Your task to perform on an android device: Open Chrome and go to settings Image 0: 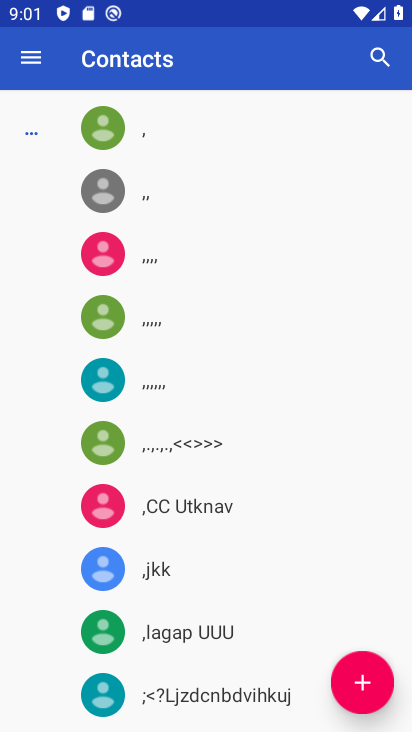
Step 0: press home button
Your task to perform on an android device: Open Chrome and go to settings Image 1: 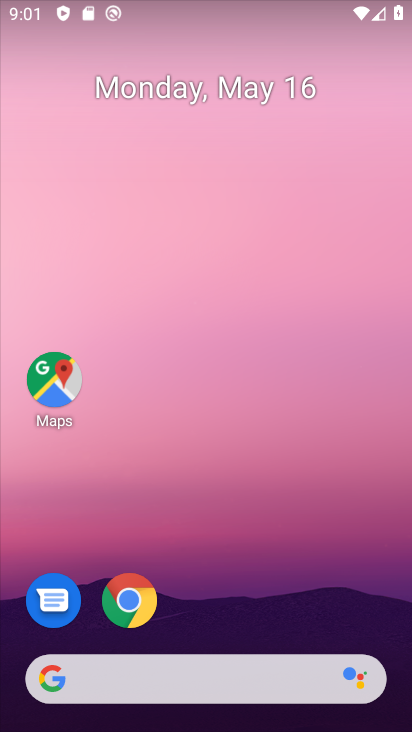
Step 1: click (126, 606)
Your task to perform on an android device: Open Chrome and go to settings Image 2: 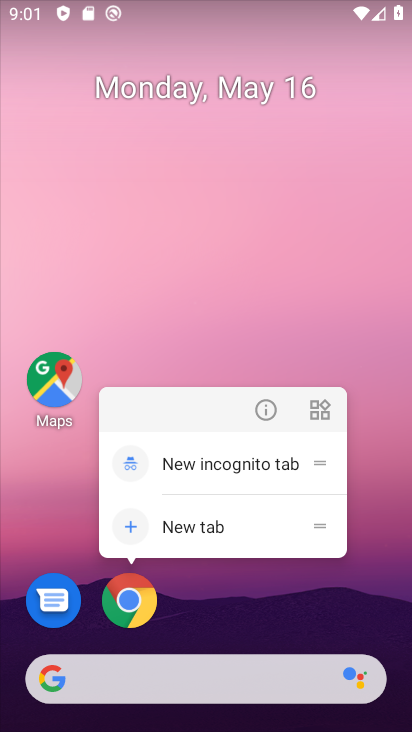
Step 2: click (126, 611)
Your task to perform on an android device: Open Chrome and go to settings Image 3: 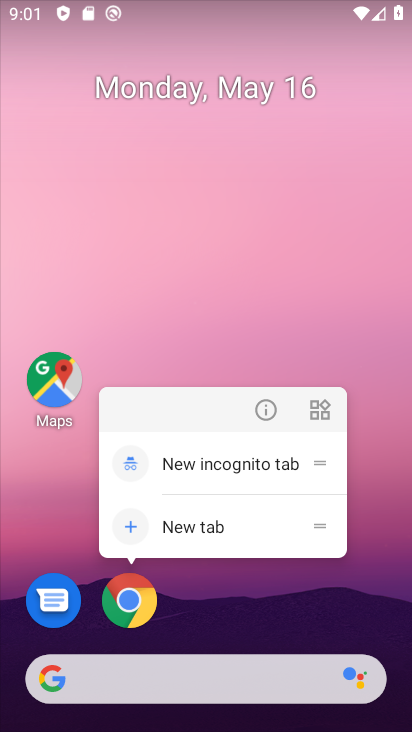
Step 3: click (141, 623)
Your task to perform on an android device: Open Chrome and go to settings Image 4: 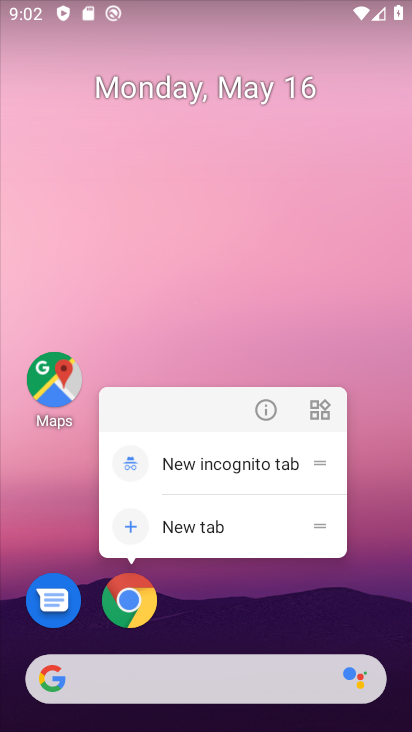
Step 4: click (125, 599)
Your task to perform on an android device: Open Chrome and go to settings Image 5: 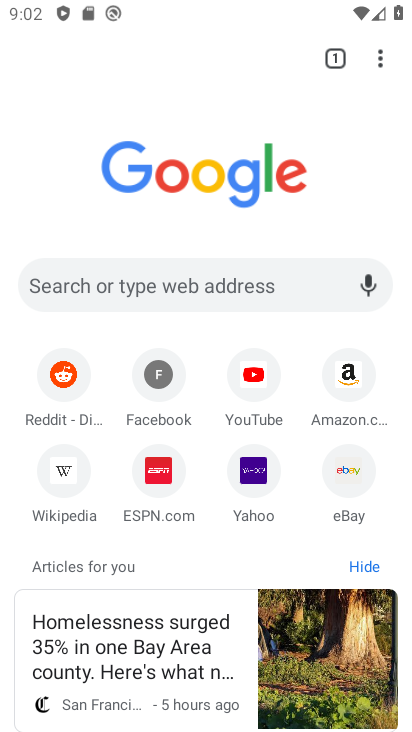
Step 5: click (378, 60)
Your task to perform on an android device: Open Chrome and go to settings Image 6: 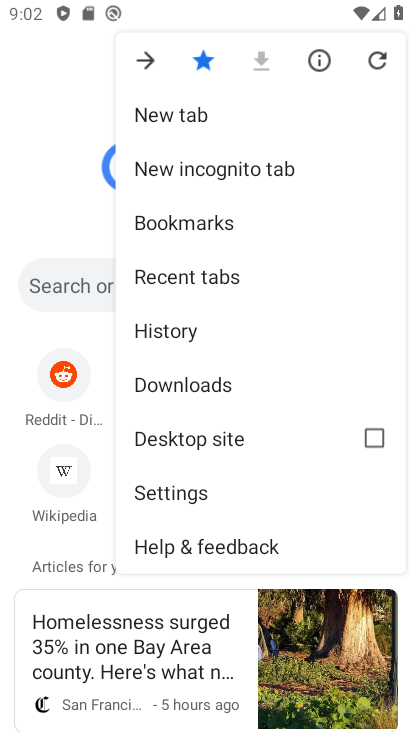
Step 6: click (169, 500)
Your task to perform on an android device: Open Chrome and go to settings Image 7: 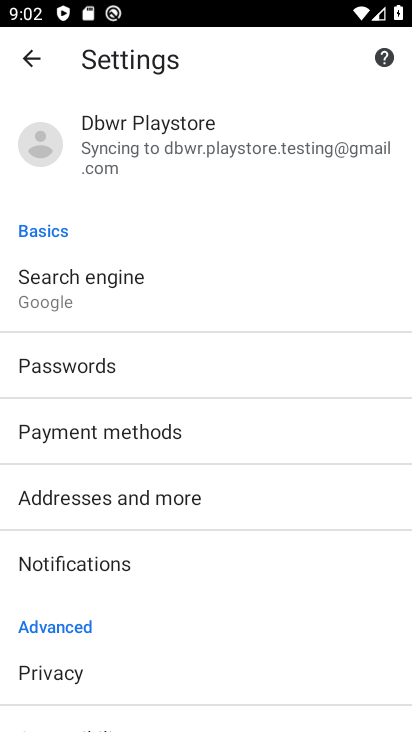
Step 7: task complete